Your task to perform on an android device: uninstall "Spotify: Music and Podcasts" Image 0: 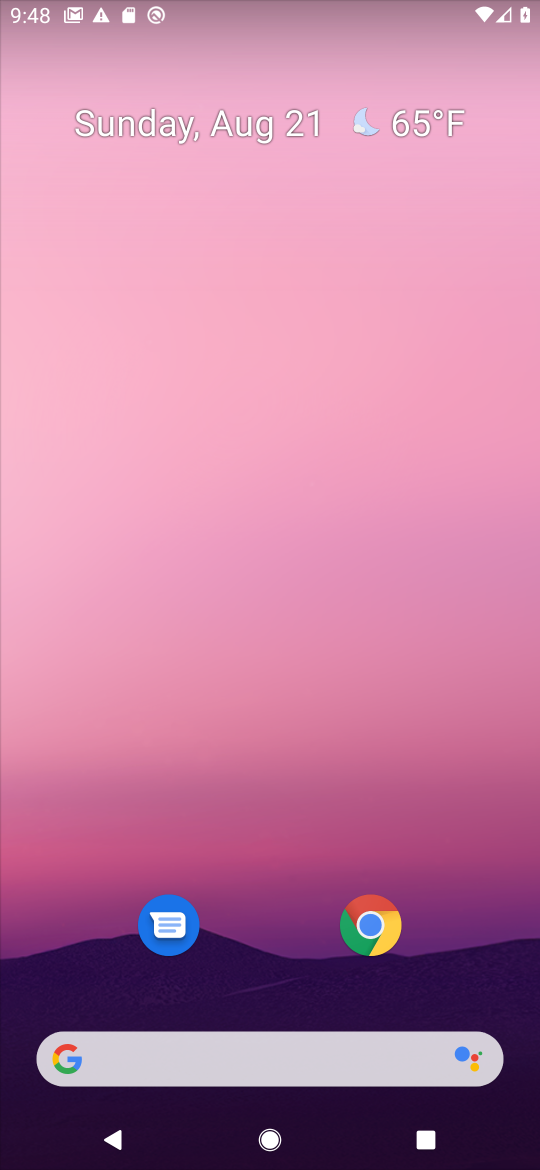
Step 0: drag from (259, 971) to (321, 129)
Your task to perform on an android device: uninstall "Spotify: Music and Podcasts" Image 1: 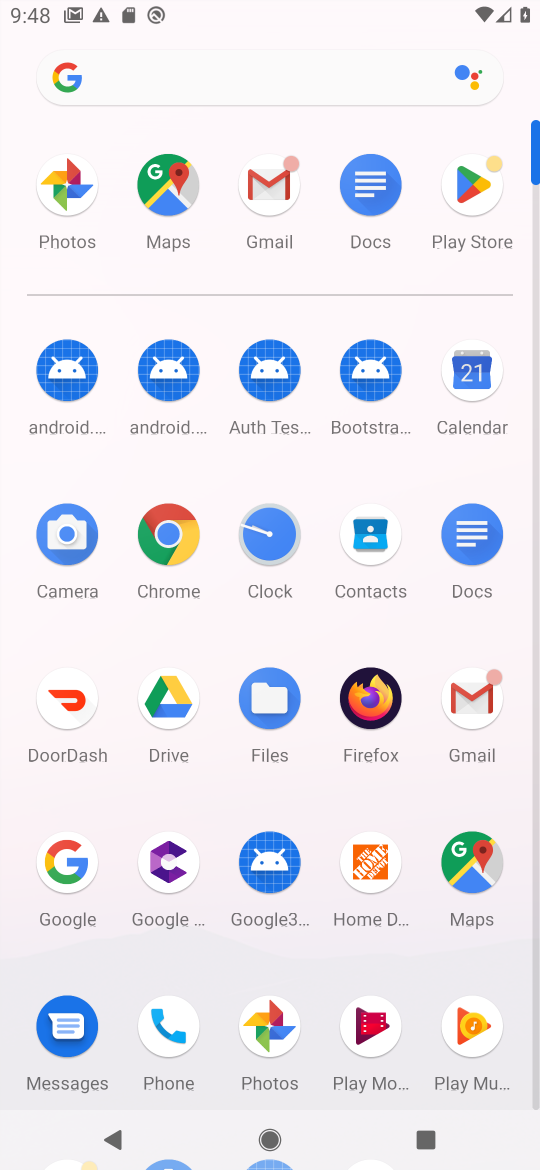
Step 1: click (489, 175)
Your task to perform on an android device: uninstall "Spotify: Music and Podcasts" Image 2: 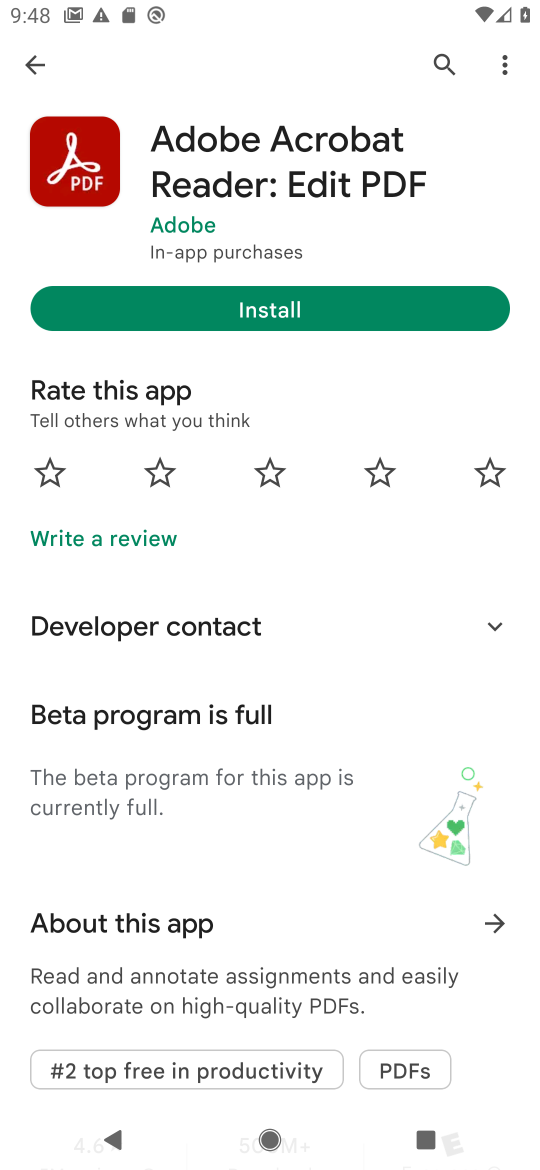
Step 2: click (447, 53)
Your task to perform on an android device: uninstall "Spotify: Music and Podcasts" Image 3: 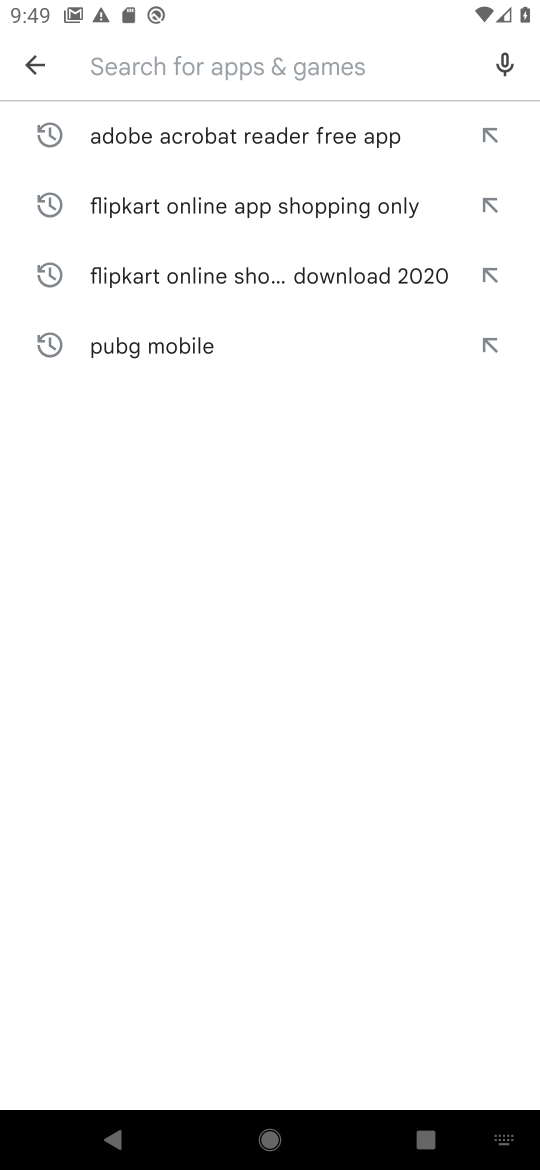
Step 3: type "Spotify"
Your task to perform on an android device: uninstall "Spotify: Music and Podcasts" Image 4: 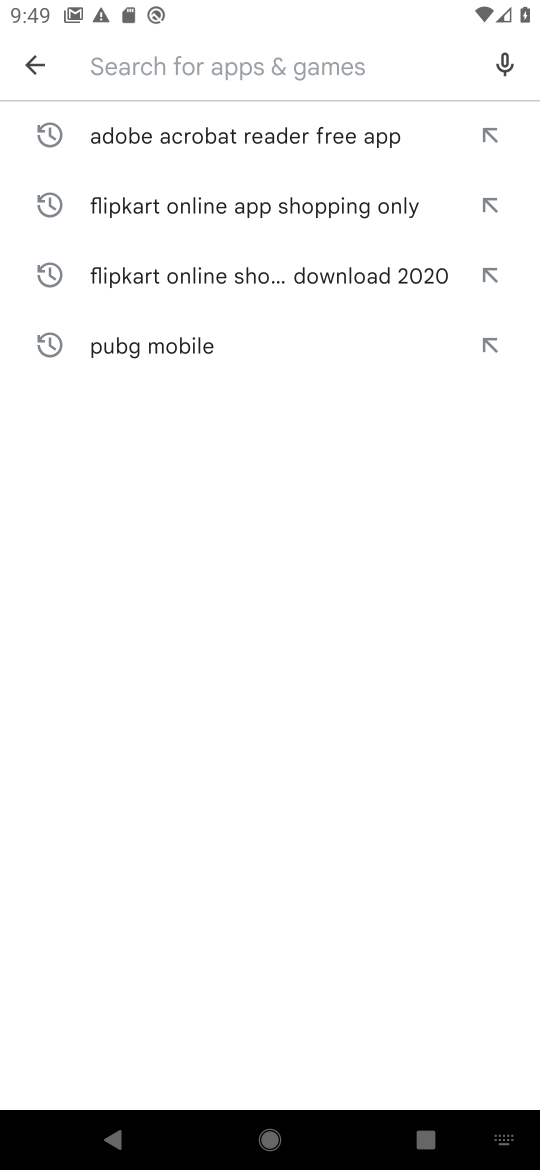
Step 4: click (154, 517)
Your task to perform on an android device: uninstall "Spotify: Music and Podcasts" Image 5: 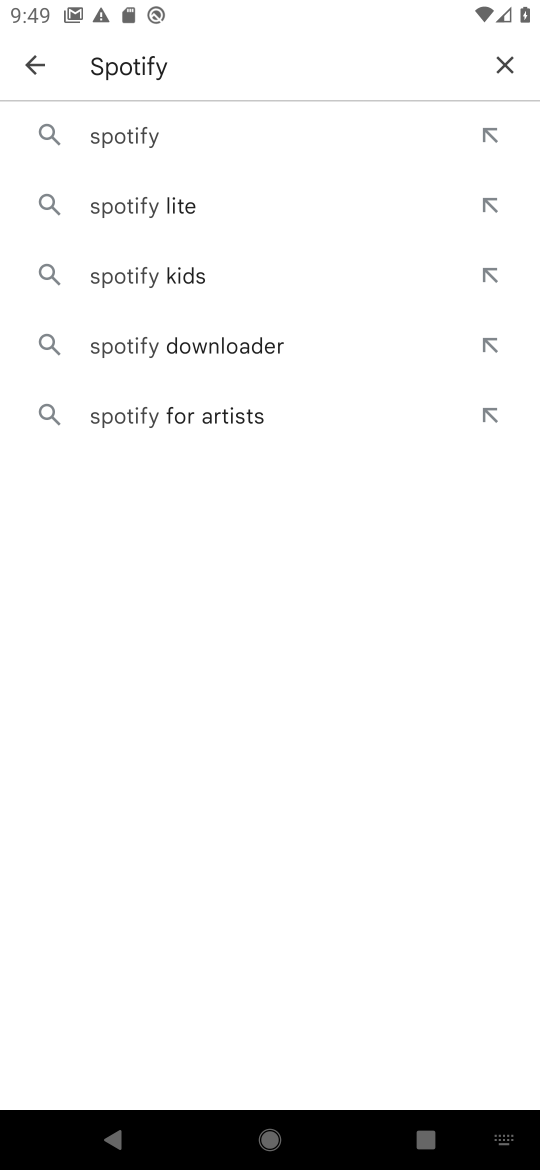
Step 5: click (162, 143)
Your task to perform on an android device: uninstall "Spotify: Music and Podcasts" Image 6: 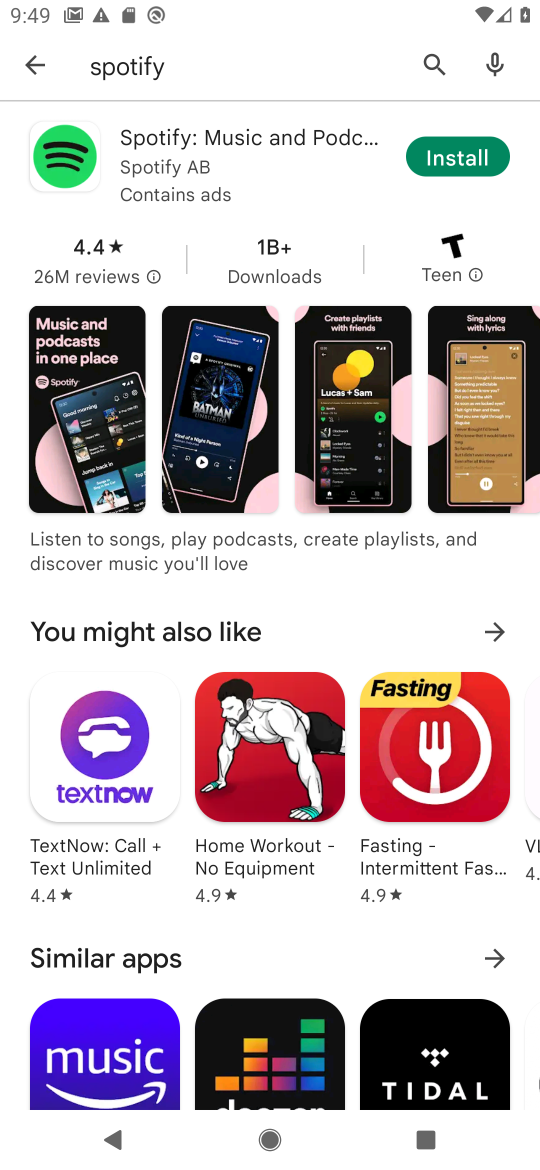
Step 6: click (243, 152)
Your task to perform on an android device: uninstall "Spotify: Music and Podcasts" Image 7: 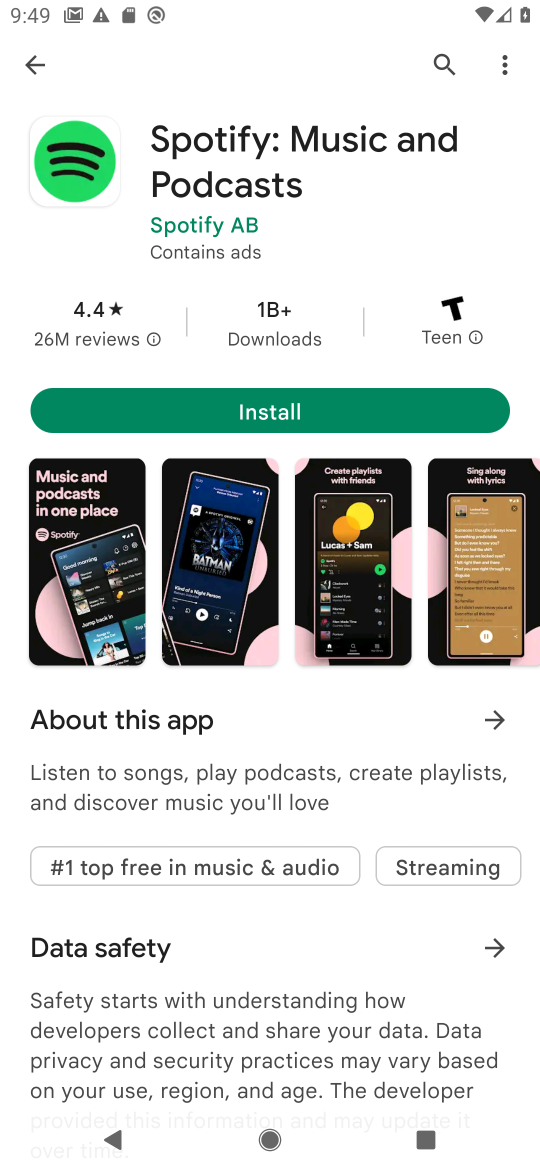
Step 7: task complete